Your task to perform on an android device: Play the new Bruno Mars video on YouTube Image 0: 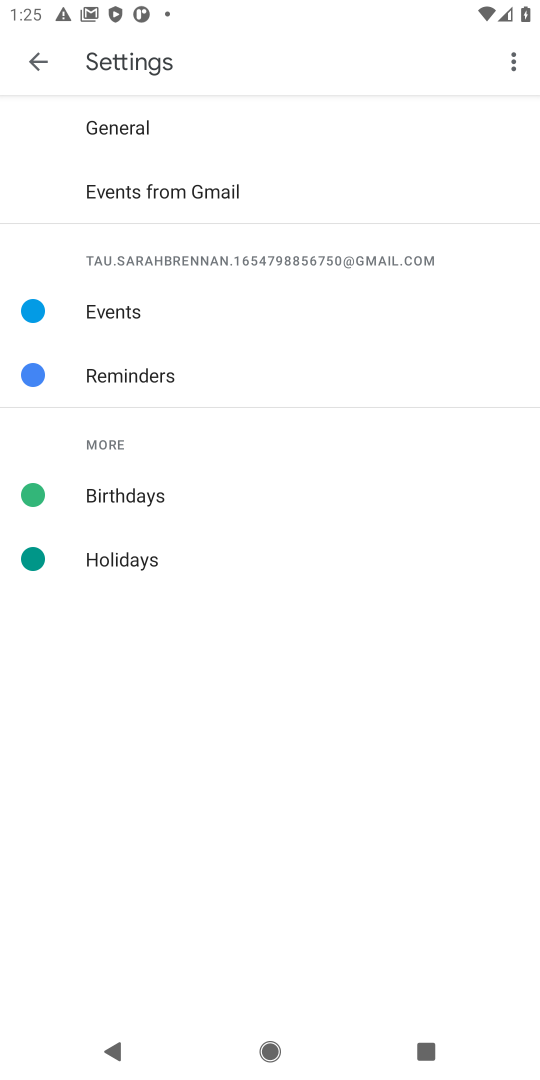
Step 0: press home button
Your task to perform on an android device: Play the new Bruno Mars video on YouTube Image 1: 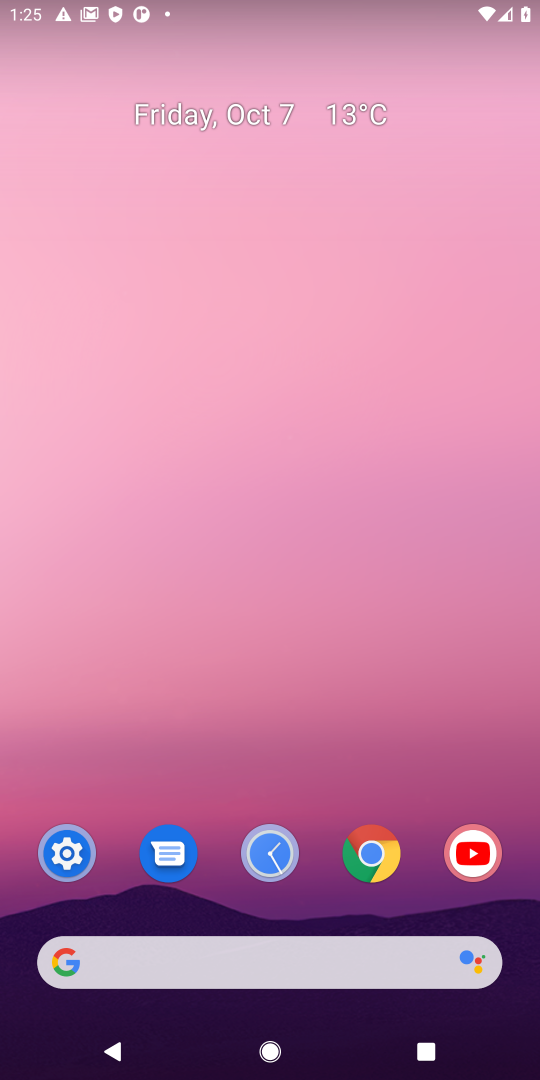
Step 1: click (463, 861)
Your task to perform on an android device: Play the new Bruno Mars video on YouTube Image 2: 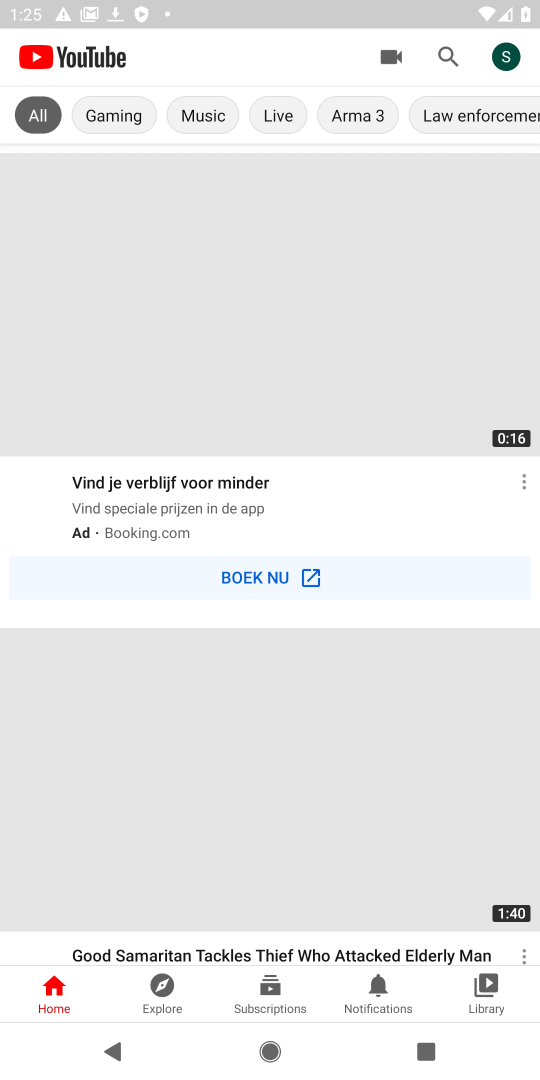
Step 2: click (430, 65)
Your task to perform on an android device: Play the new Bruno Mars video on YouTube Image 3: 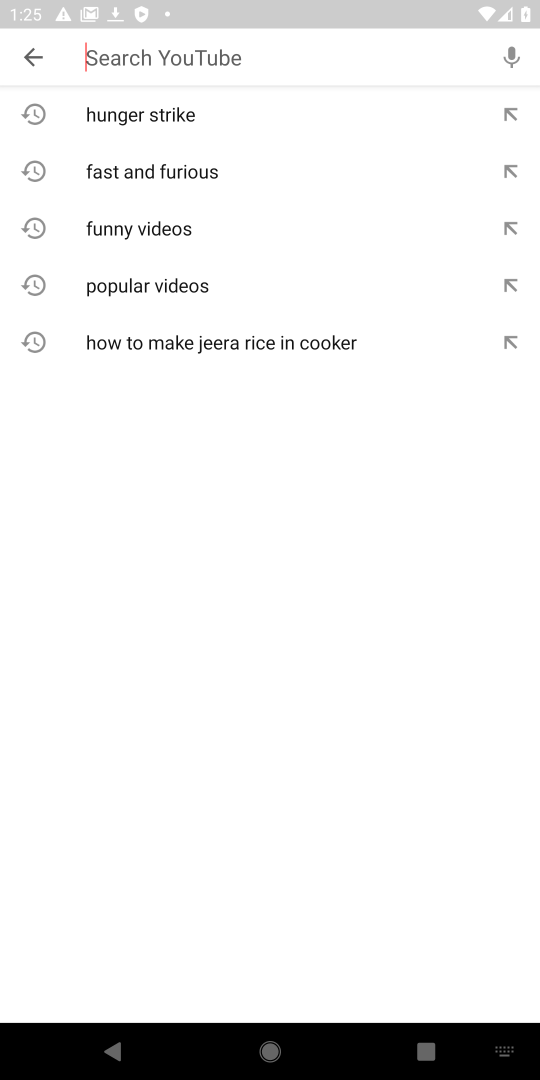
Step 3: type "Bruno Mars"
Your task to perform on an android device: Play the new Bruno Mars video on YouTube Image 4: 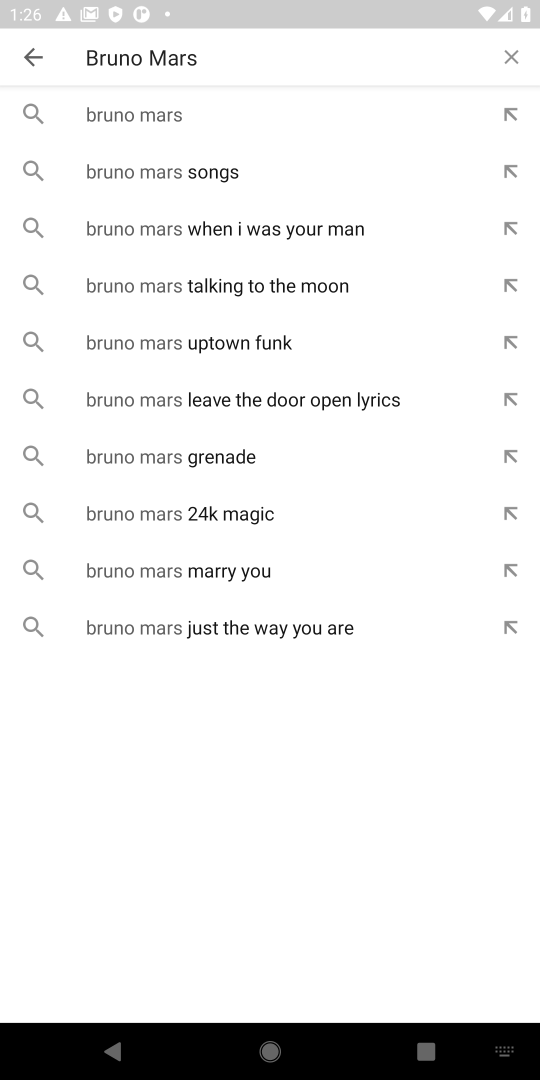
Step 4: click (150, 108)
Your task to perform on an android device: Play the new Bruno Mars video on YouTube Image 5: 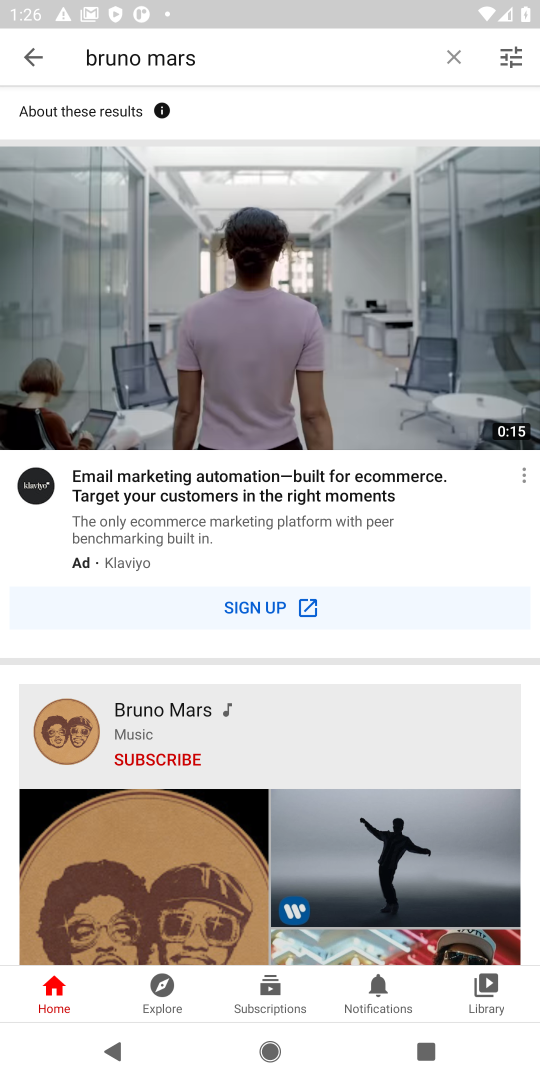
Step 5: click (338, 437)
Your task to perform on an android device: Play the new Bruno Mars video on YouTube Image 6: 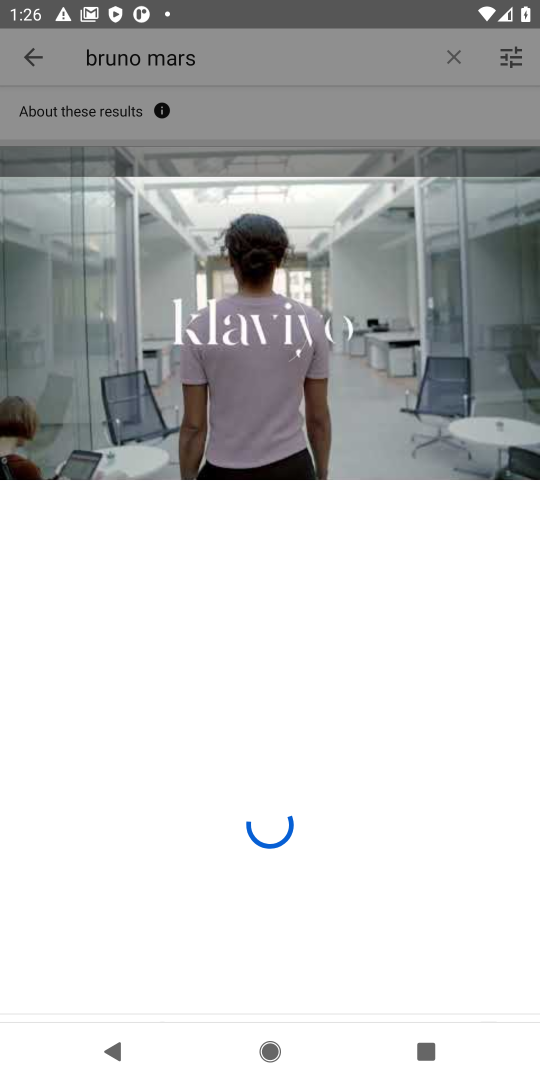
Step 6: task complete